Your task to perform on an android device: Show me popular videos on Youtube Image 0: 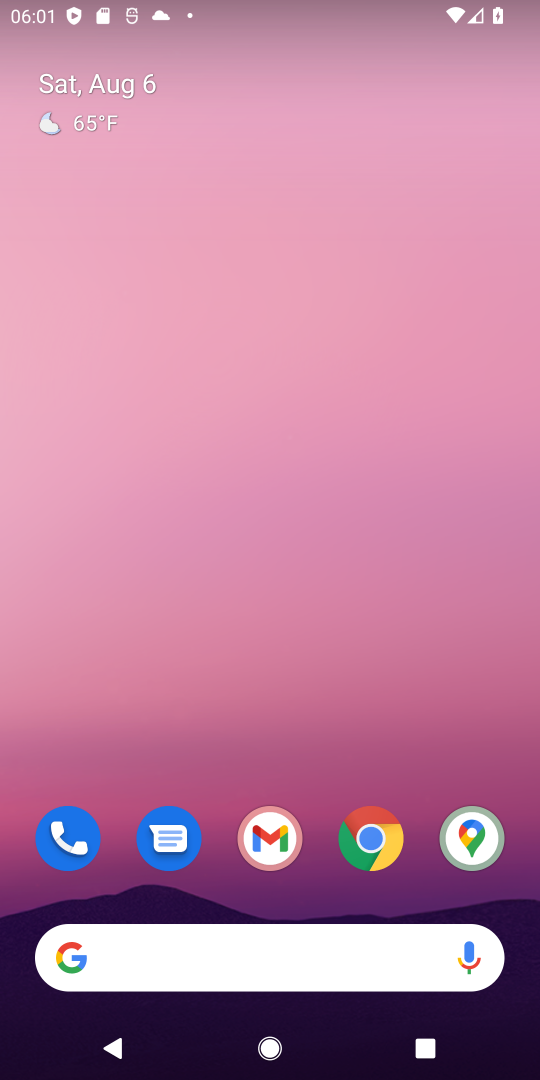
Step 0: drag from (284, 591) to (0, 6)
Your task to perform on an android device: Show me popular videos on Youtube Image 1: 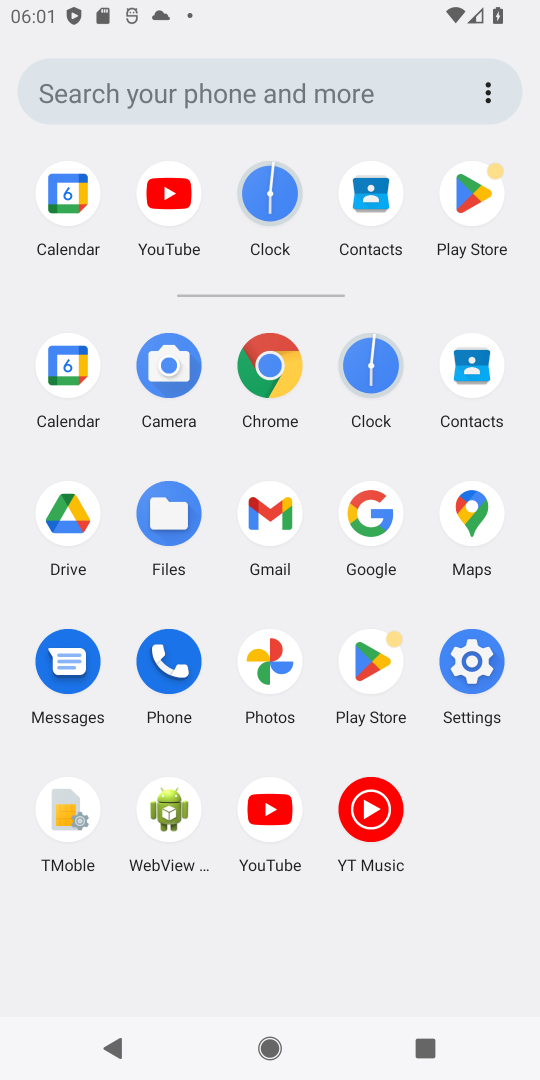
Step 1: click (278, 816)
Your task to perform on an android device: Show me popular videos on Youtube Image 2: 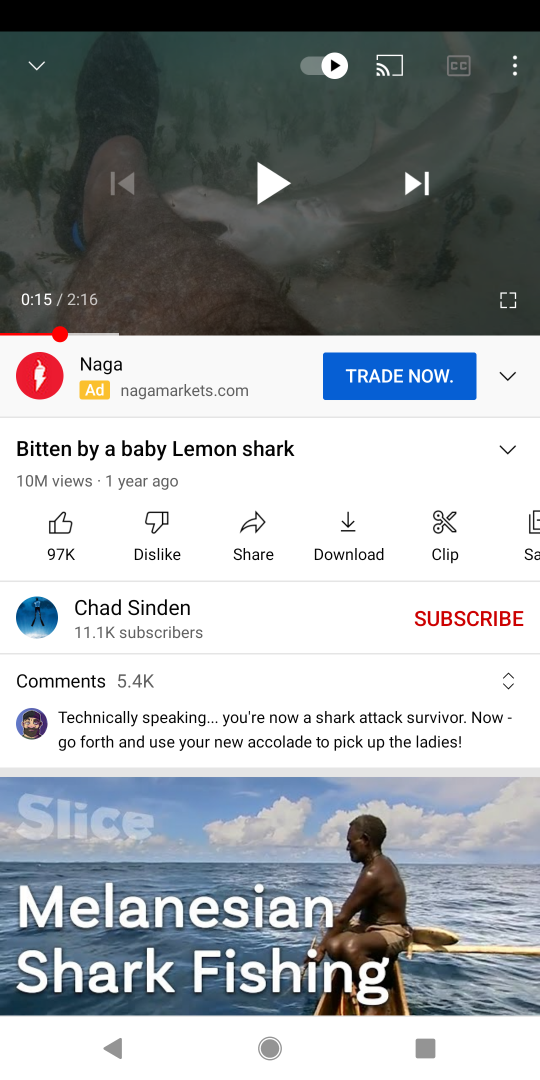
Step 2: press back button
Your task to perform on an android device: Show me popular videos on Youtube Image 3: 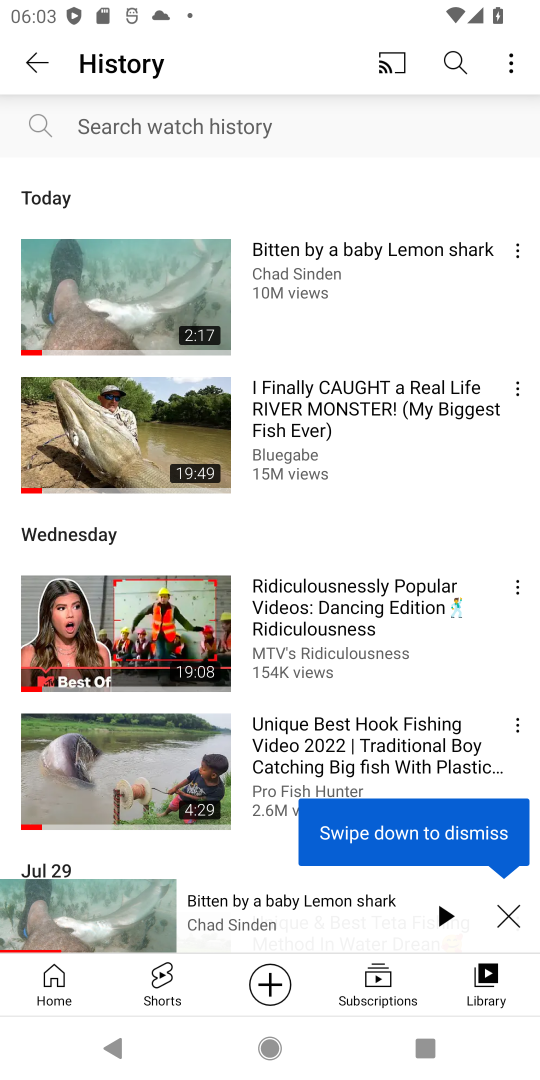
Step 3: press back button
Your task to perform on an android device: Show me popular videos on Youtube Image 4: 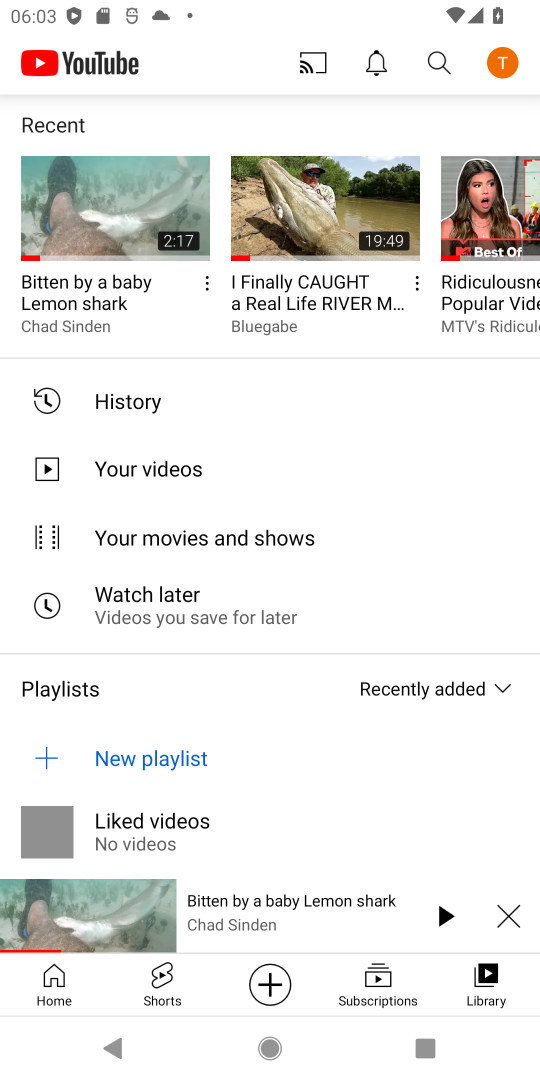
Step 4: click (49, 997)
Your task to perform on an android device: Show me popular videos on Youtube Image 5: 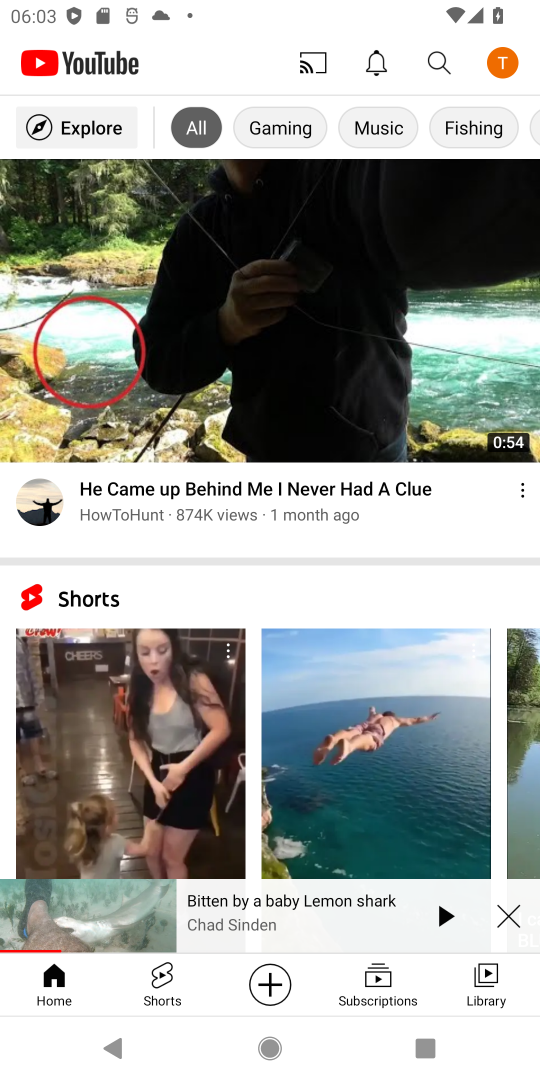
Step 5: click (62, 117)
Your task to perform on an android device: Show me popular videos on Youtube Image 6: 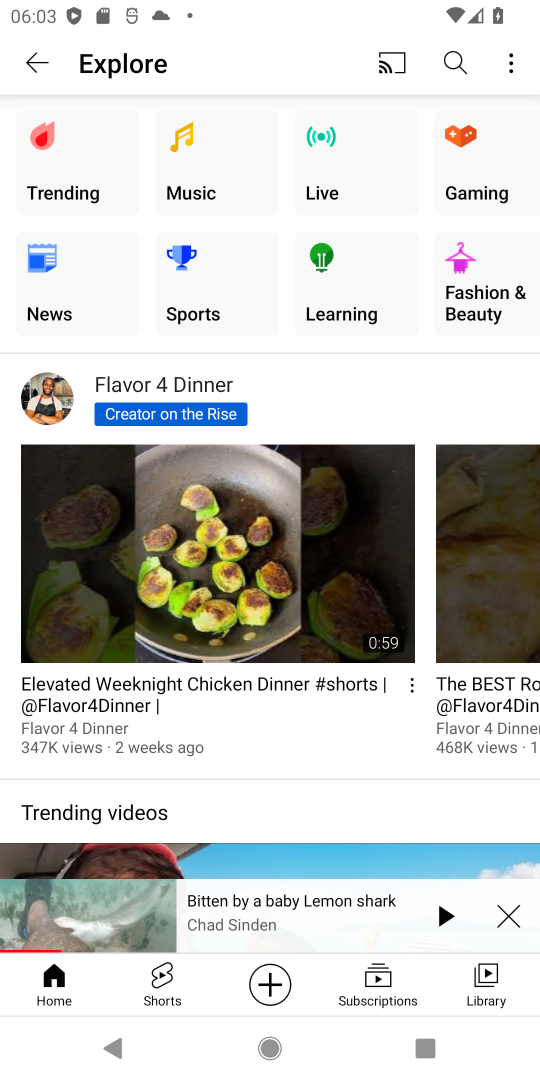
Step 6: click (89, 167)
Your task to perform on an android device: Show me popular videos on Youtube Image 7: 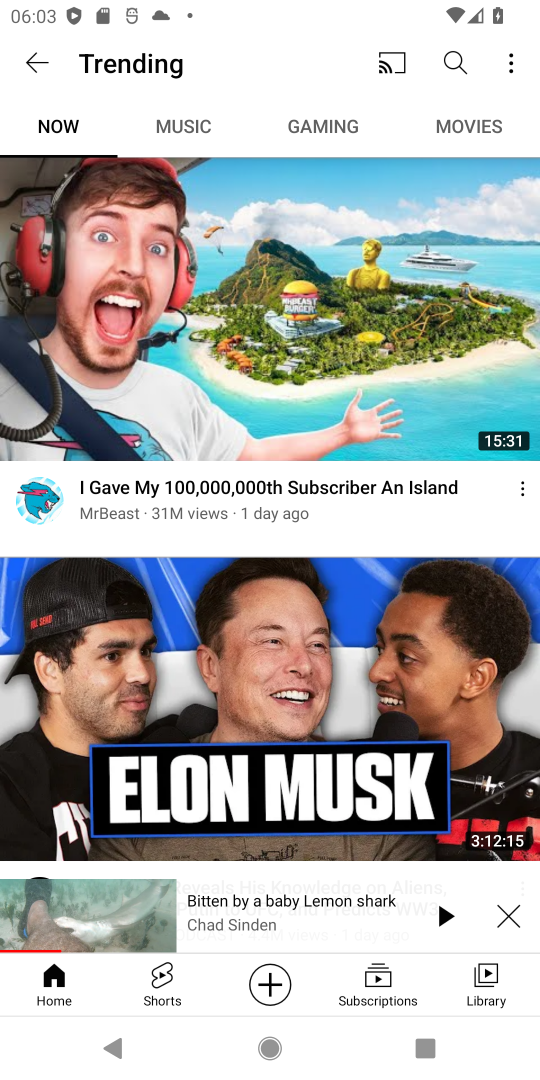
Step 7: task complete